Your task to perform on an android device: turn off notifications in google photos Image 0: 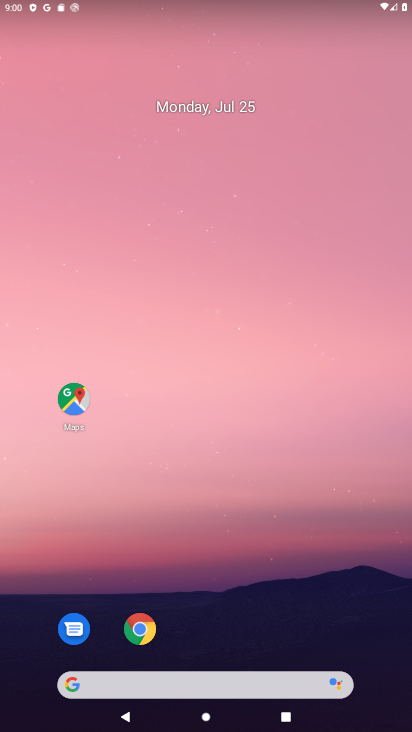
Step 0: drag from (212, 631) to (201, 69)
Your task to perform on an android device: turn off notifications in google photos Image 1: 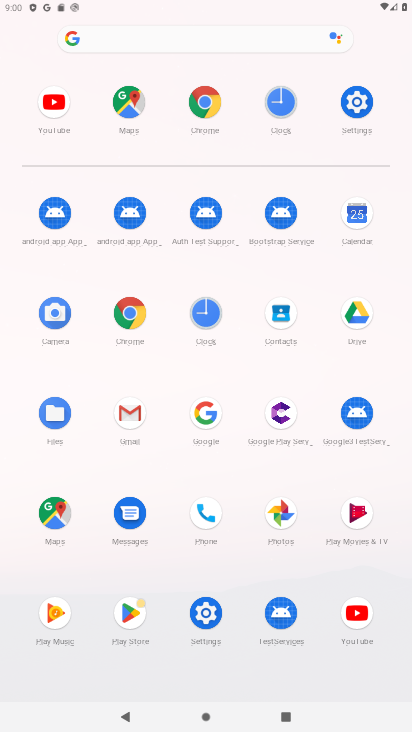
Step 1: click (359, 109)
Your task to perform on an android device: turn off notifications in google photos Image 2: 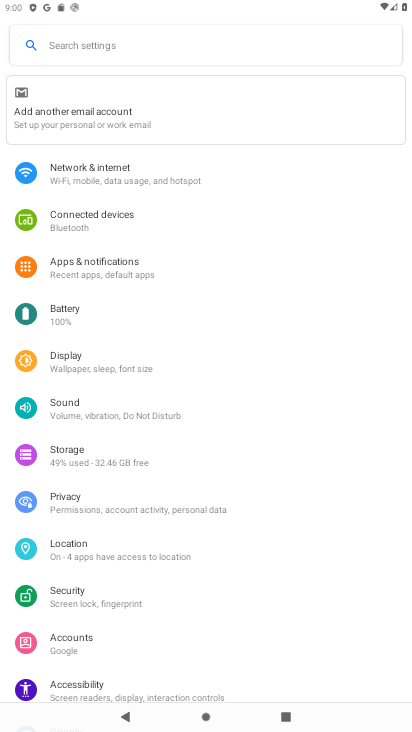
Step 2: click (132, 277)
Your task to perform on an android device: turn off notifications in google photos Image 3: 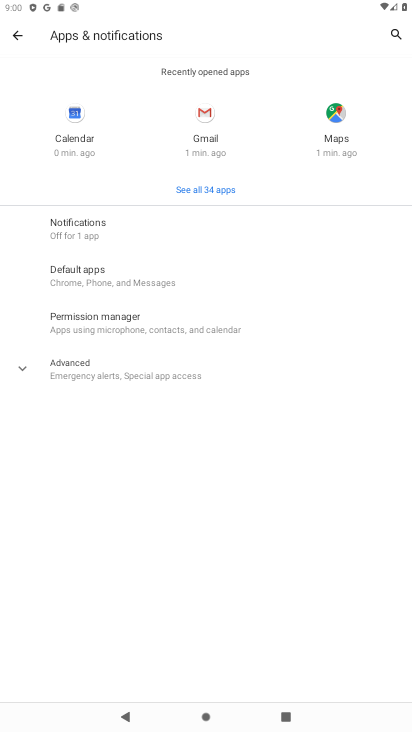
Step 3: click (220, 192)
Your task to perform on an android device: turn off notifications in google photos Image 4: 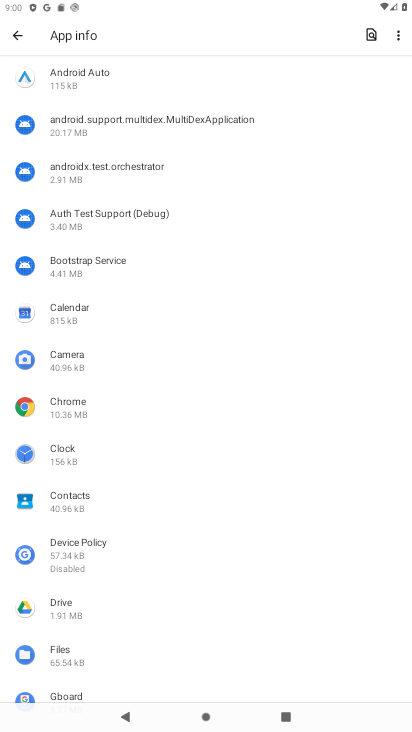
Step 4: drag from (131, 668) to (187, 128)
Your task to perform on an android device: turn off notifications in google photos Image 5: 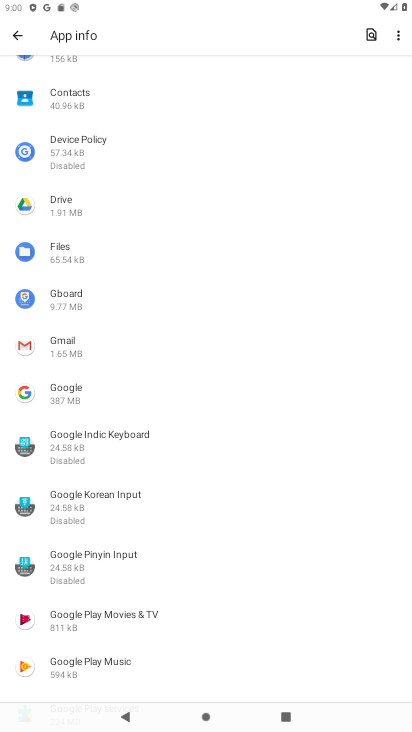
Step 5: drag from (120, 659) to (202, 147)
Your task to perform on an android device: turn off notifications in google photos Image 6: 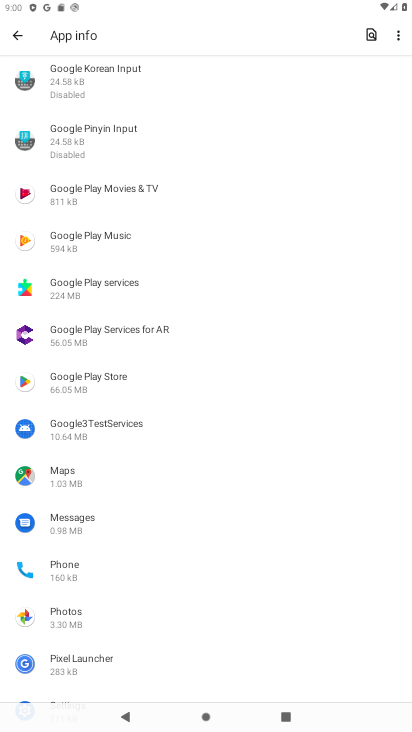
Step 6: click (70, 628)
Your task to perform on an android device: turn off notifications in google photos Image 7: 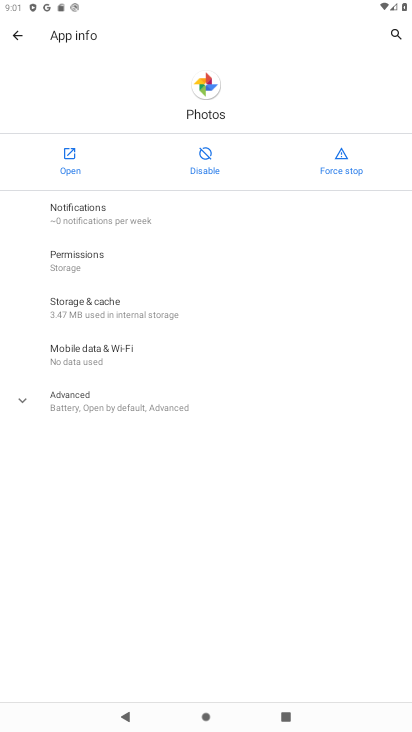
Step 7: click (125, 223)
Your task to perform on an android device: turn off notifications in google photos Image 8: 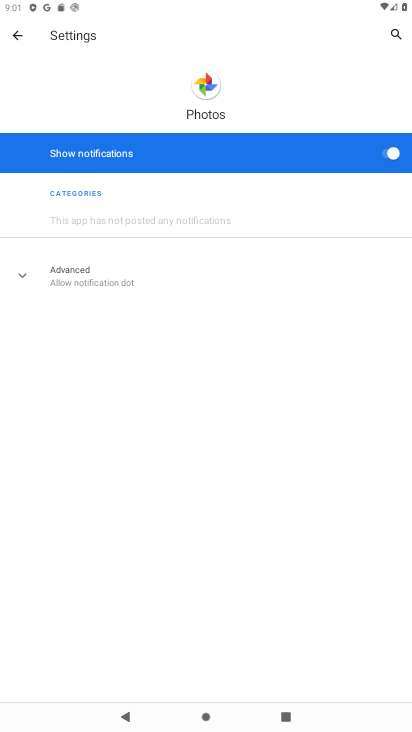
Step 8: click (395, 156)
Your task to perform on an android device: turn off notifications in google photos Image 9: 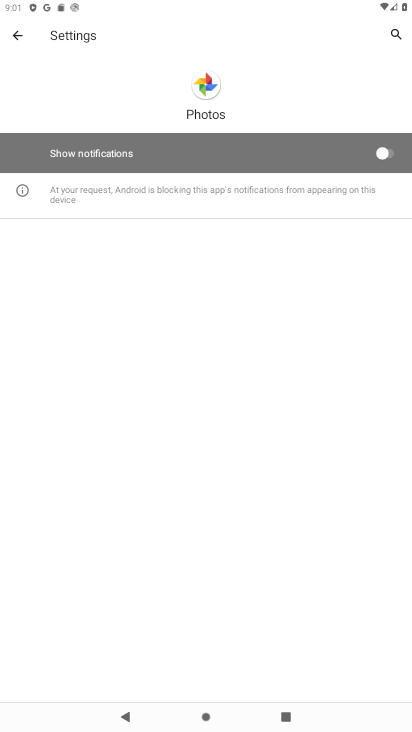
Step 9: task complete